Your task to perform on an android device: delete a single message in the gmail app Image 0: 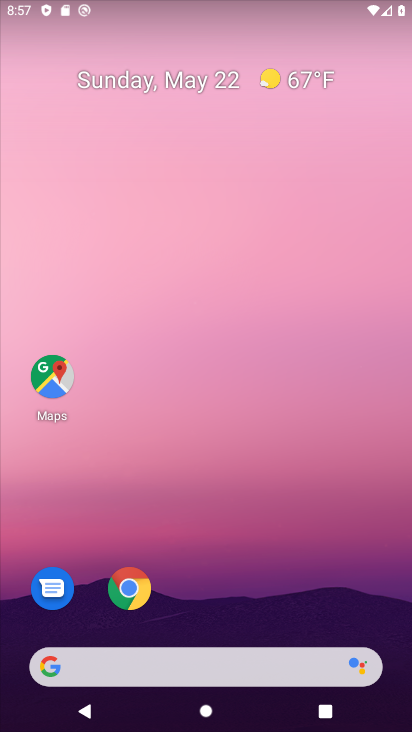
Step 0: drag from (227, 477) to (275, 170)
Your task to perform on an android device: delete a single message in the gmail app Image 1: 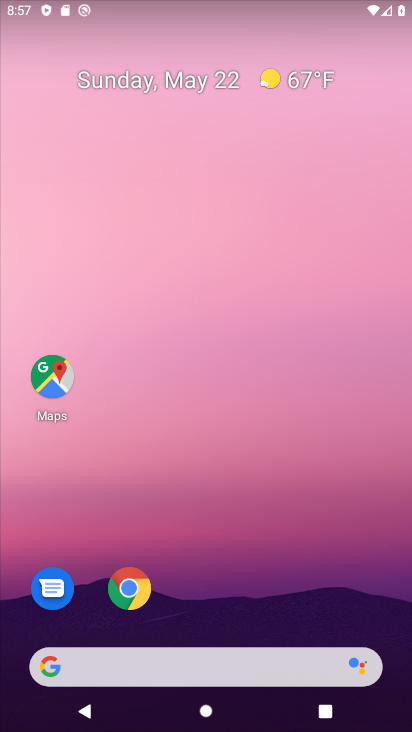
Step 1: click (281, 150)
Your task to perform on an android device: delete a single message in the gmail app Image 2: 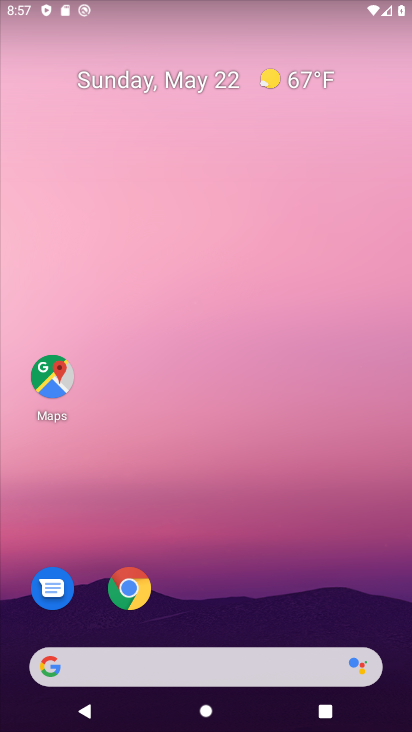
Step 2: drag from (205, 627) to (250, 125)
Your task to perform on an android device: delete a single message in the gmail app Image 3: 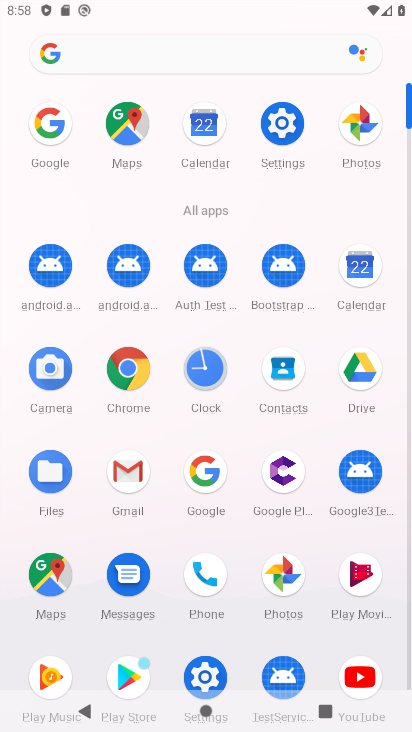
Step 3: click (136, 477)
Your task to perform on an android device: delete a single message in the gmail app Image 4: 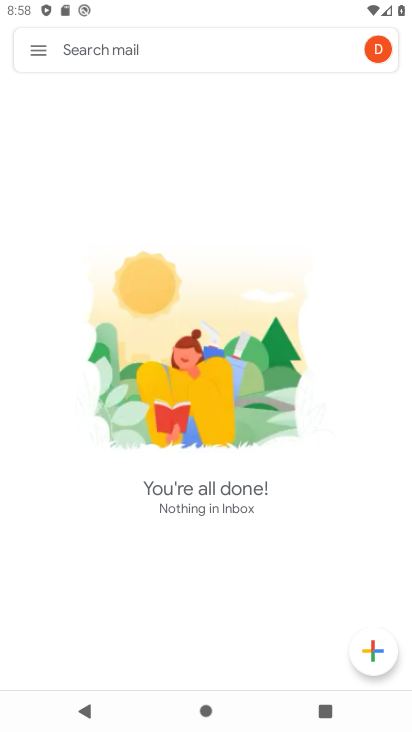
Step 4: click (46, 59)
Your task to perform on an android device: delete a single message in the gmail app Image 5: 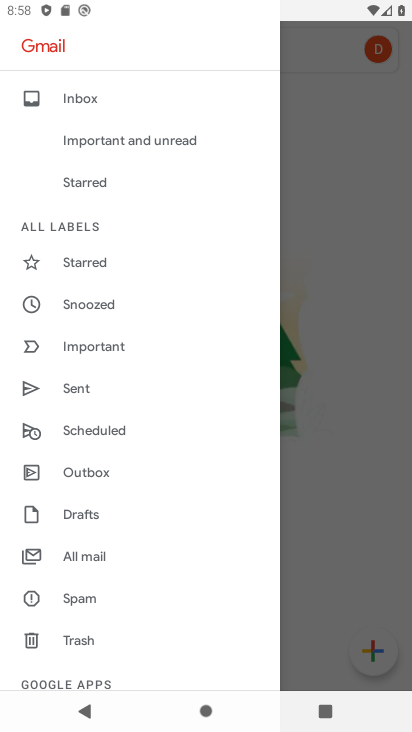
Step 5: click (119, 560)
Your task to perform on an android device: delete a single message in the gmail app Image 6: 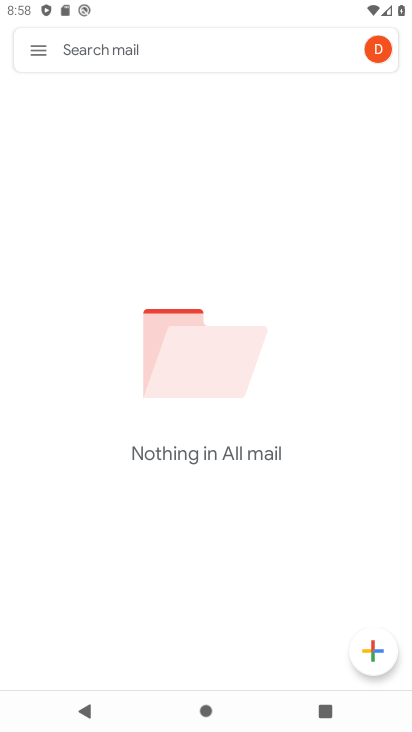
Step 6: task complete